Your task to perform on an android device: Go to Android settings Image 0: 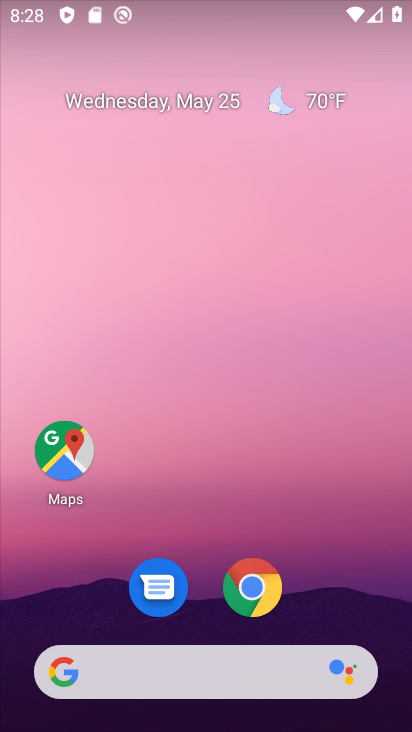
Step 0: drag from (199, 609) to (282, 79)
Your task to perform on an android device: Go to Android settings Image 1: 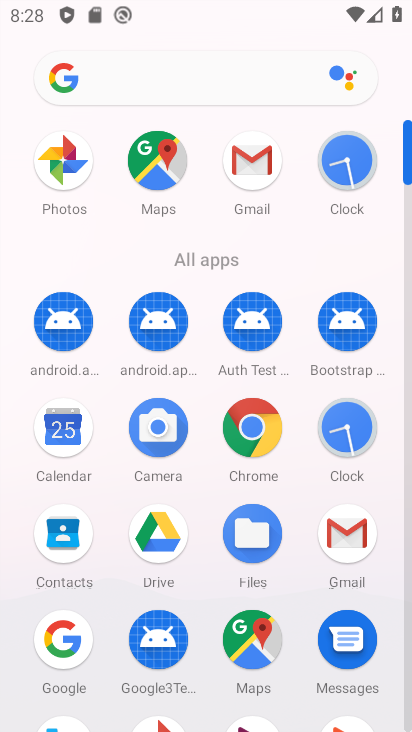
Step 1: drag from (190, 617) to (202, 269)
Your task to perform on an android device: Go to Android settings Image 2: 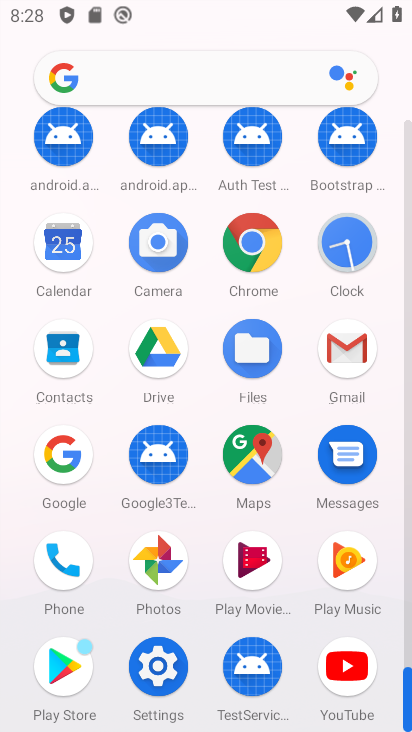
Step 2: click (154, 664)
Your task to perform on an android device: Go to Android settings Image 3: 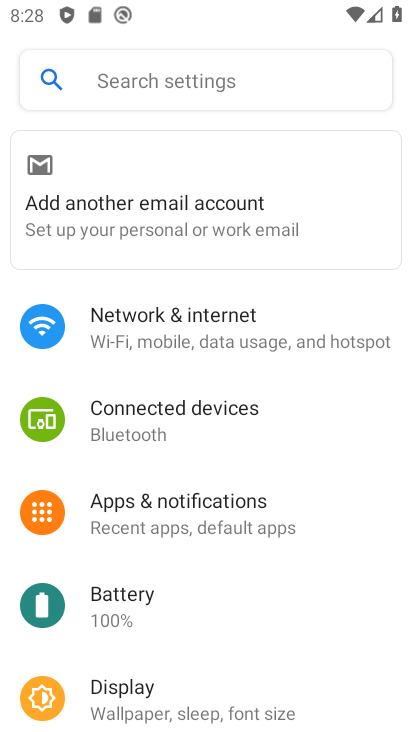
Step 3: drag from (189, 597) to (246, 72)
Your task to perform on an android device: Go to Android settings Image 4: 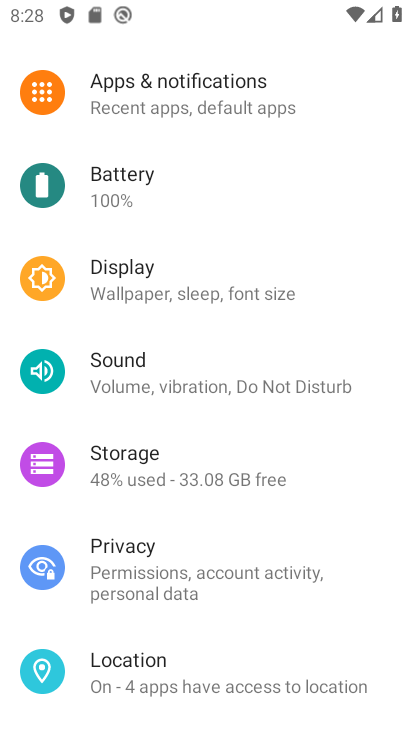
Step 4: drag from (174, 498) to (271, 33)
Your task to perform on an android device: Go to Android settings Image 5: 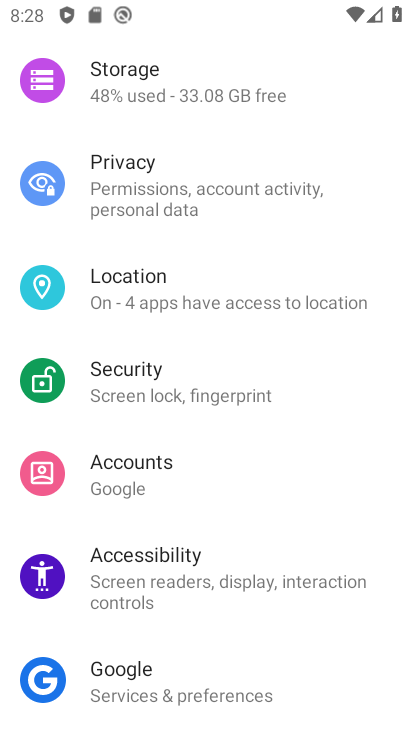
Step 5: drag from (215, 483) to (293, 5)
Your task to perform on an android device: Go to Android settings Image 6: 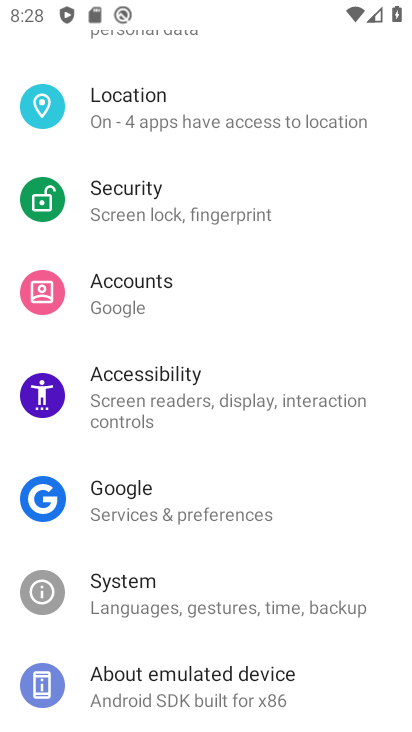
Step 6: drag from (223, 561) to (231, 323)
Your task to perform on an android device: Go to Android settings Image 7: 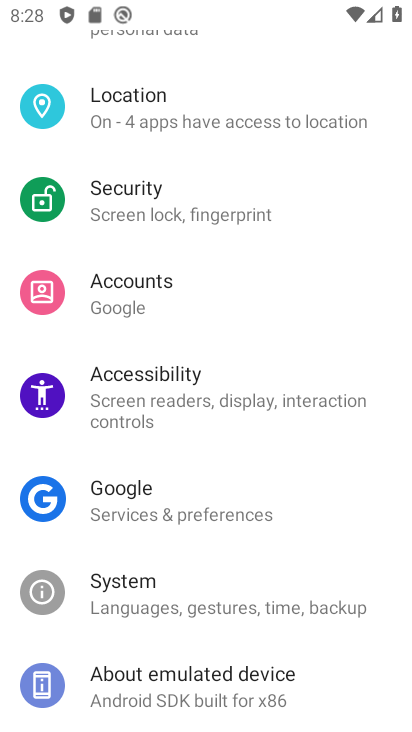
Step 7: click (169, 688)
Your task to perform on an android device: Go to Android settings Image 8: 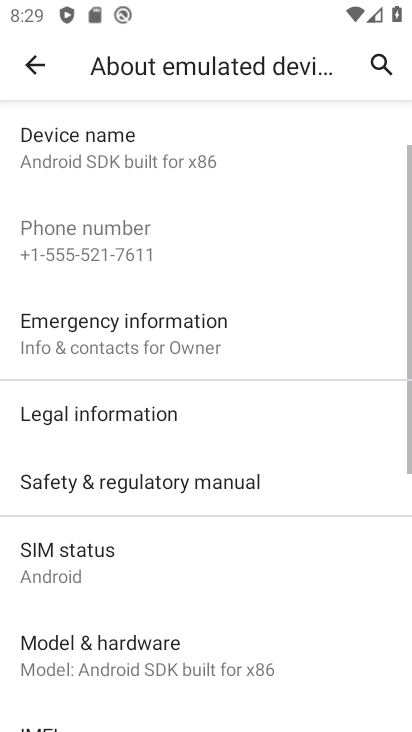
Step 8: task complete